Your task to perform on an android device: turn off notifications settings in the gmail app Image 0: 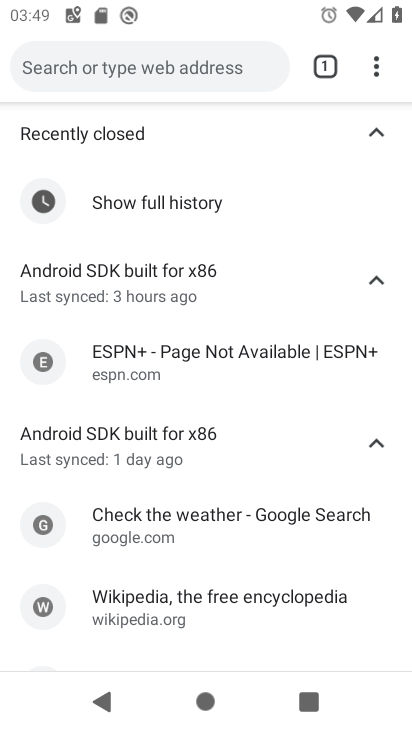
Step 0: press home button
Your task to perform on an android device: turn off notifications settings in the gmail app Image 1: 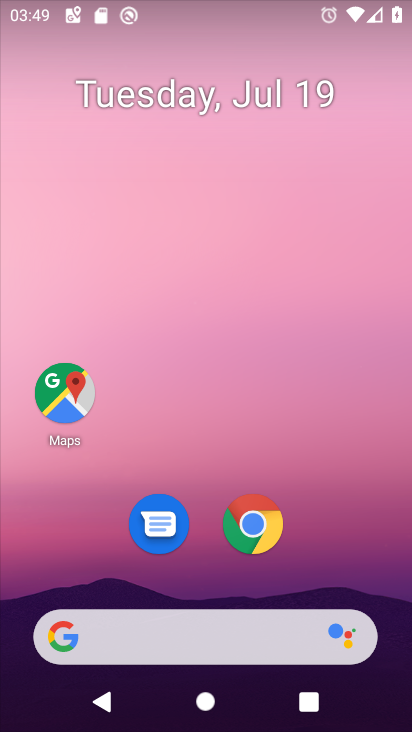
Step 1: drag from (339, 562) to (330, 100)
Your task to perform on an android device: turn off notifications settings in the gmail app Image 2: 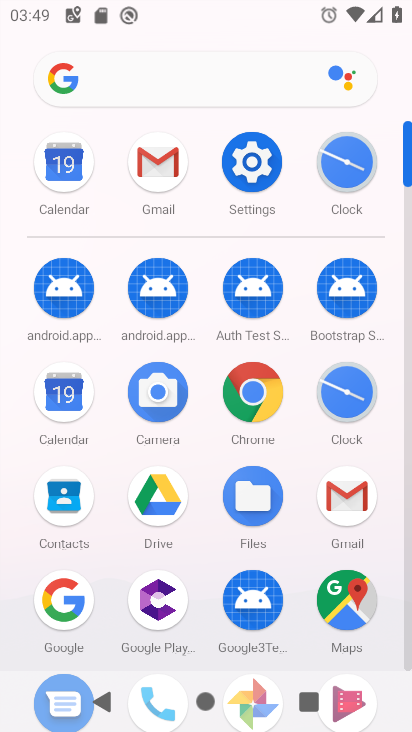
Step 2: click (165, 164)
Your task to perform on an android device: turn off notifications settings in the gmail app Image 3: 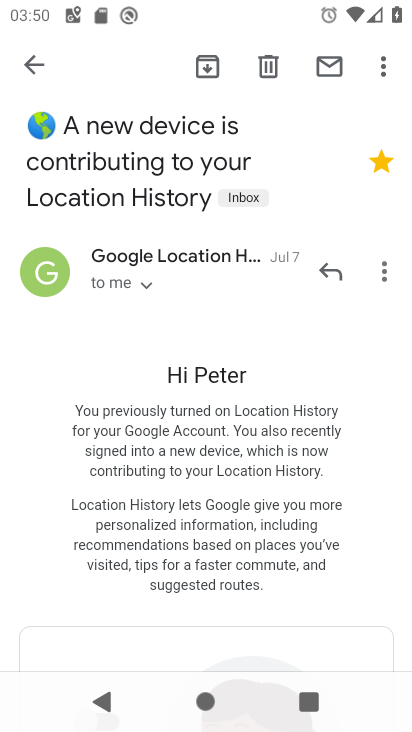
Step 3: click (38, 64)
Your task to perform on an android device: turn off notifications settings in the gmail app Image 4: 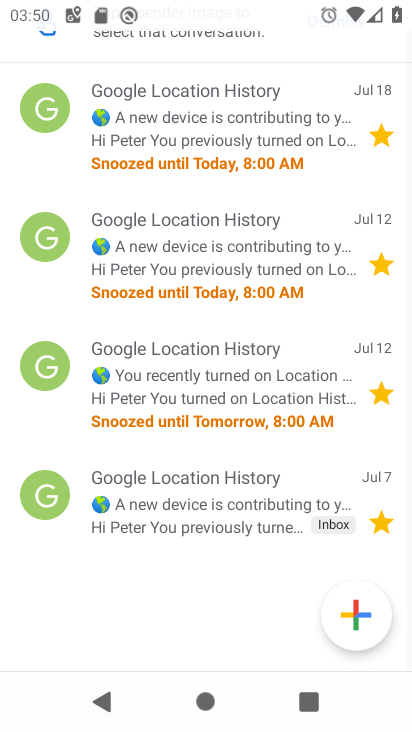
Step 4: drag from (166, 149) to (127, 561)
Your task to perform on an android device: turn off notifications settings in the gmail app Image 5: 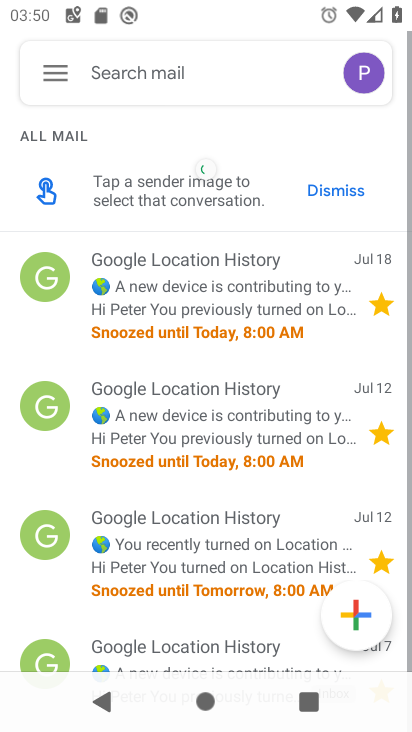
Step 5: click (57, 69)
Your task to perform on an android device: turn off notifications settings in the gmail app Image 6: 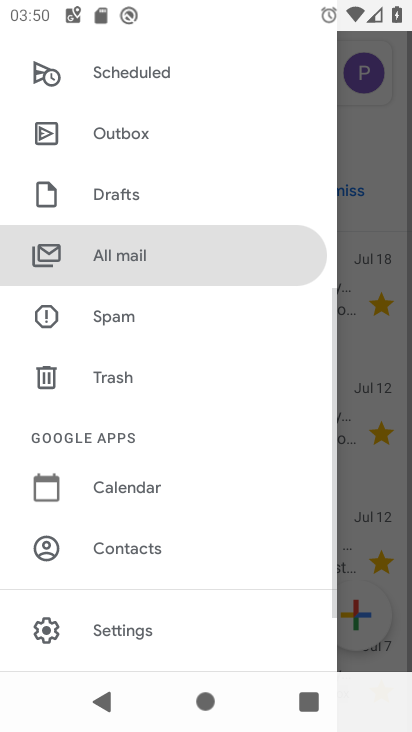
Step 6: click (120, 634)
Your task to perform on an android device: turn off notifications settings in the gmail app Image 7: 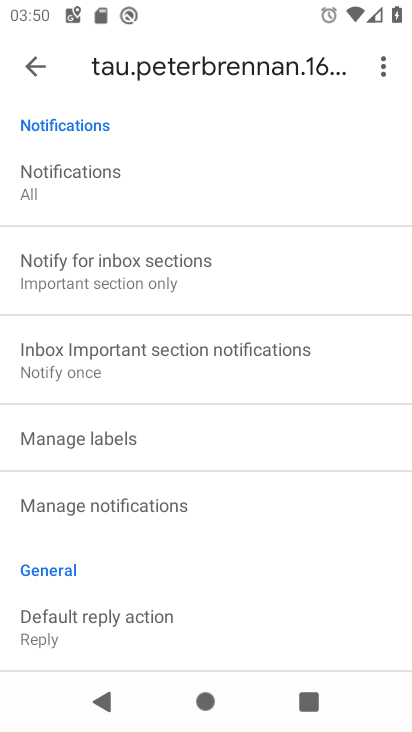
Step 7: click (167, 495)
Your task to perform on an android device: turn off notifications settings in the gmail app Image 8: 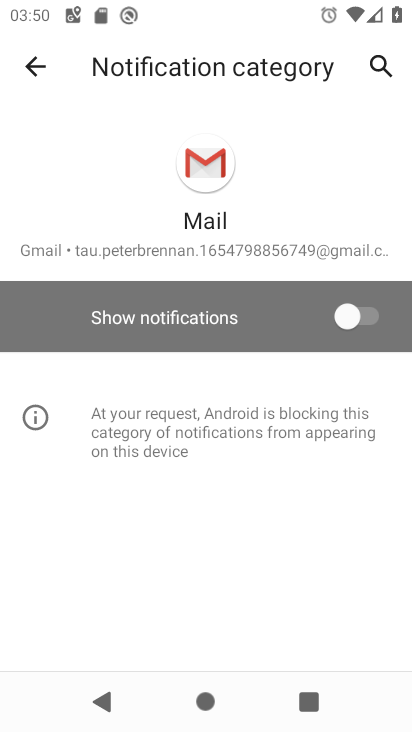
Step 8: task complete